Your task to perform on an android device: Go to Wikipedia Image 0: 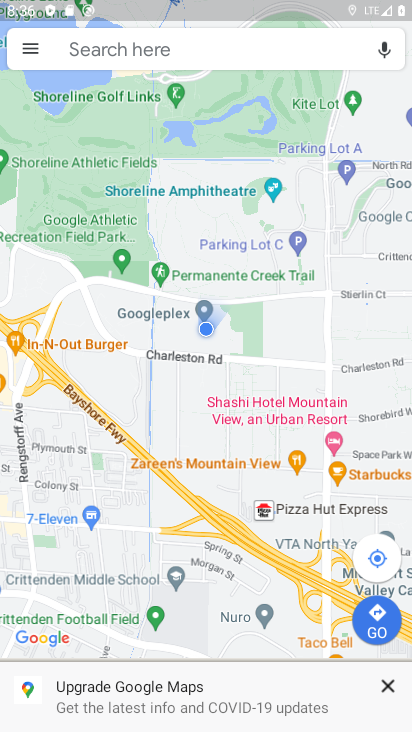
Step 0: press home button
Your task to perform on an android device: Go to Wikipedia Image 1: 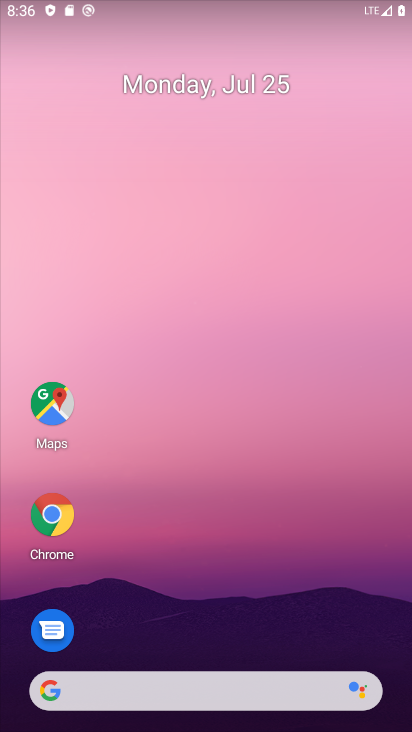
Step 1: click (133, 674)
Your task to perform on an android device: Go to Wikipedia Image 2: 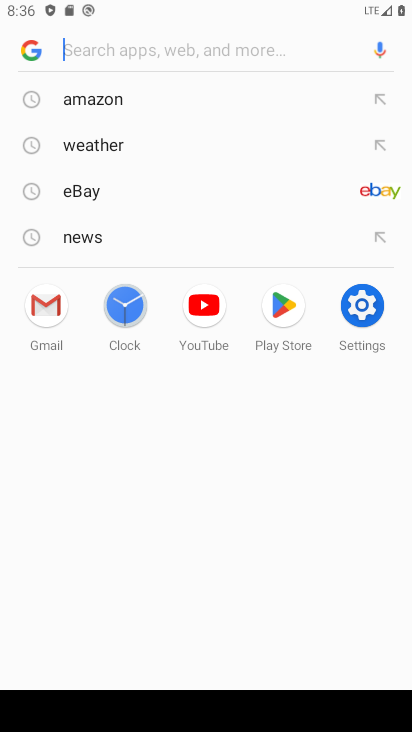
Step 2: type "Wikipedia"
Your task to perform on an android device: Go to Wikipedia Image 3: 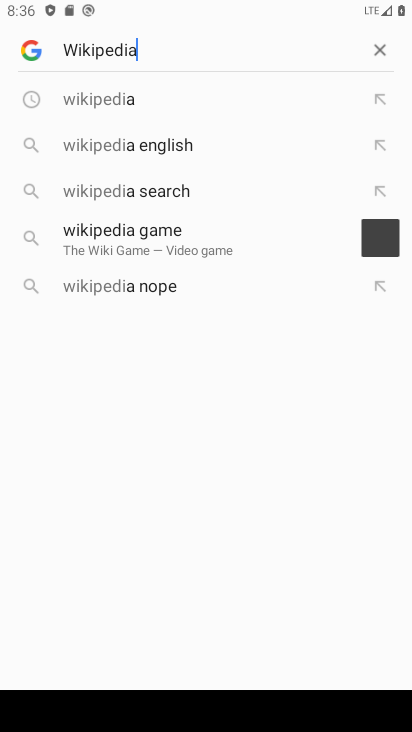
Step 3: type ""
Your task to perform on an android device: Go to Wikipedia Image 4: 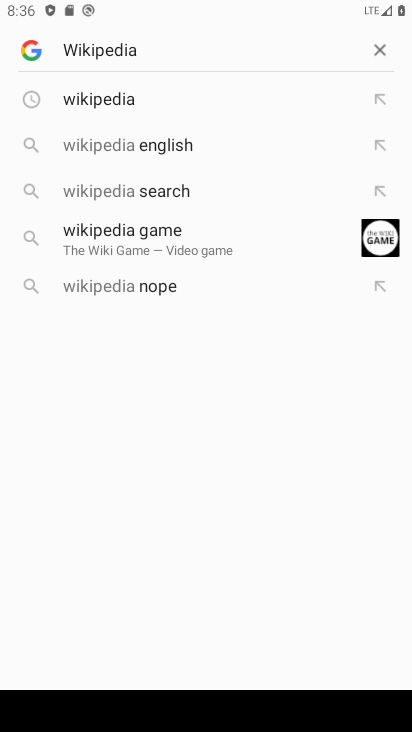
Step 4: click (90, 85)
Your task to perform on an android device: Go to Wikipedia Image 5: 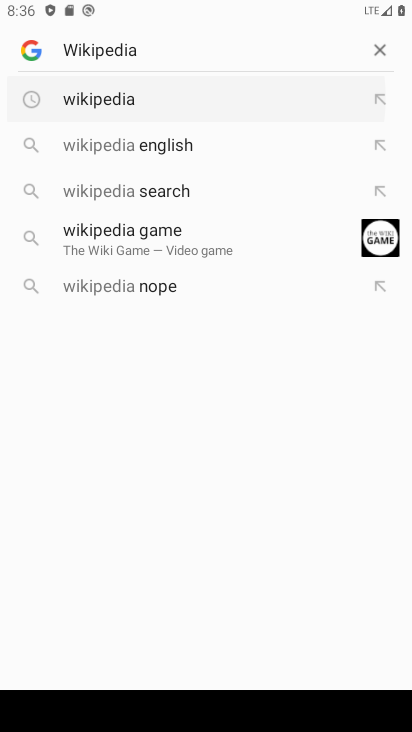
Step 5: click (88, 92)
Your task to perform on an android device: Go to Wikipedia Image 6: 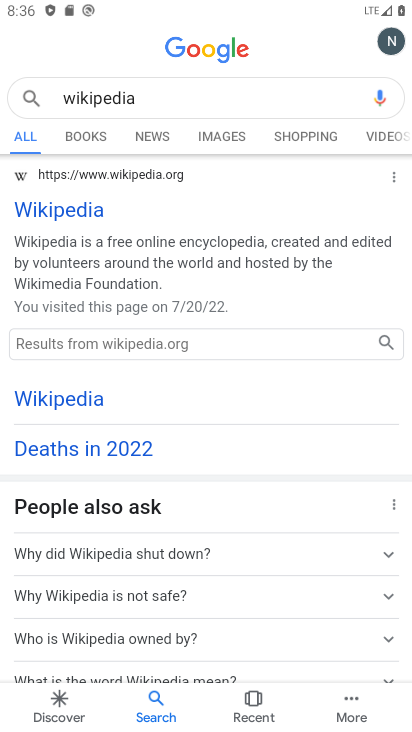
Step 6: task complete